Your task to perform on an android device: Open Maps and search for coffee Image 0: 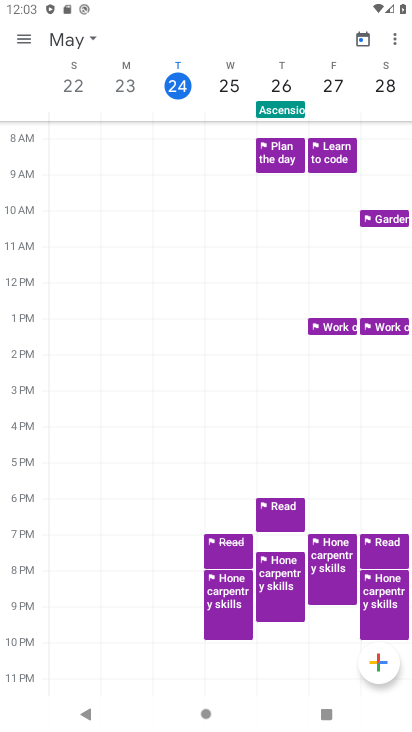
Step 0: press home button
Your task to perform on an android device: Open Maps and search for coffee Image 1: 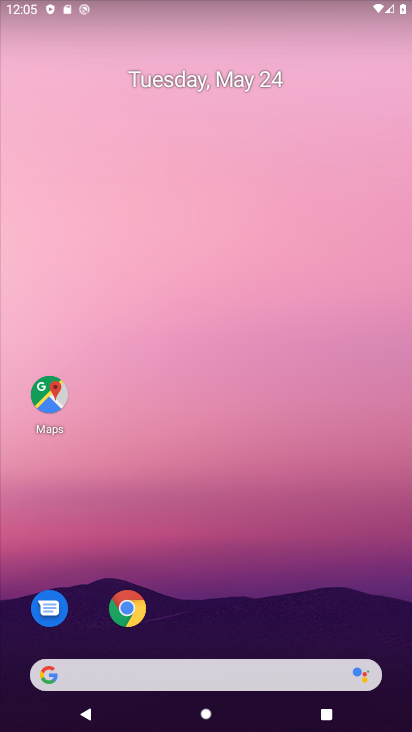
Step 1: drag from (270, 689) to (280, 164)
Your task to perform on an android device: Open Maps and search for coffee Image 2: 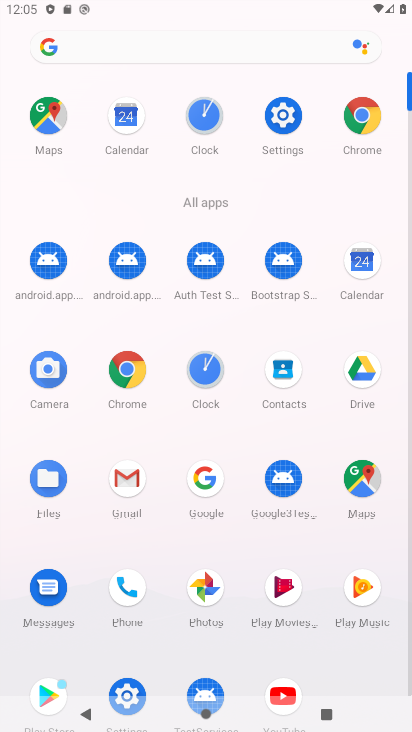
Step 2: click (75, 116)
Your task to perform on an android device: Open Maps and search for coffee Image 3: 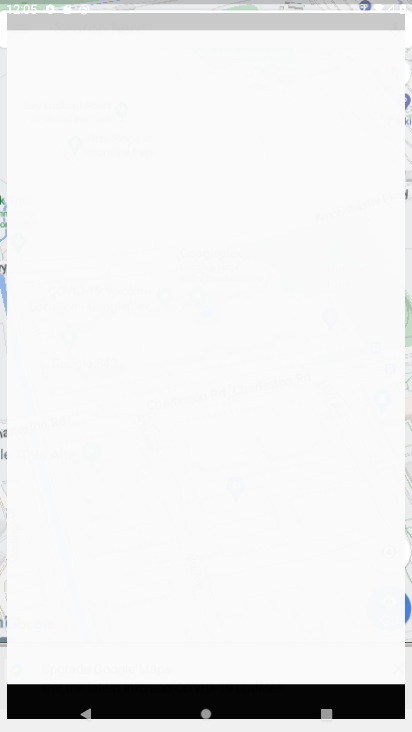
Step 3: click (151, 37)
Your task to perform on an android device: Open Maps and search for coffee Image 4: 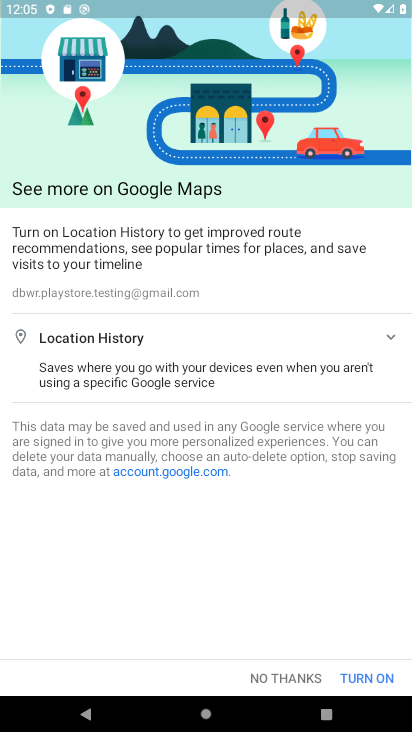
Step 4: click (285, 670)
Your task to perform on an android device: Open Maps and search for coffee Image 5: 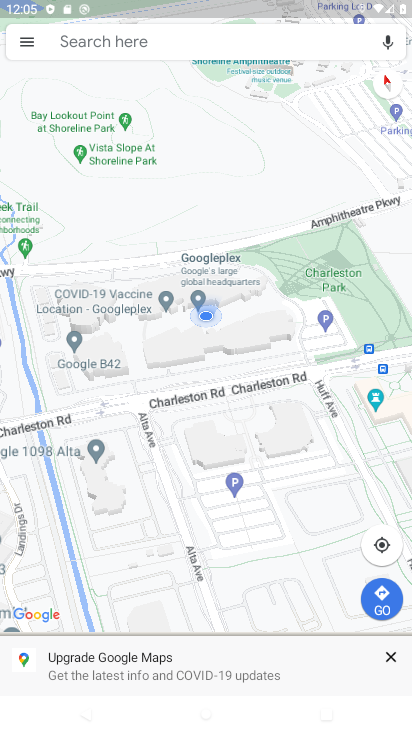
Step 5: click (150, 30)
Your task to perform on an android device: Open Maps and search for coffee Image 6: 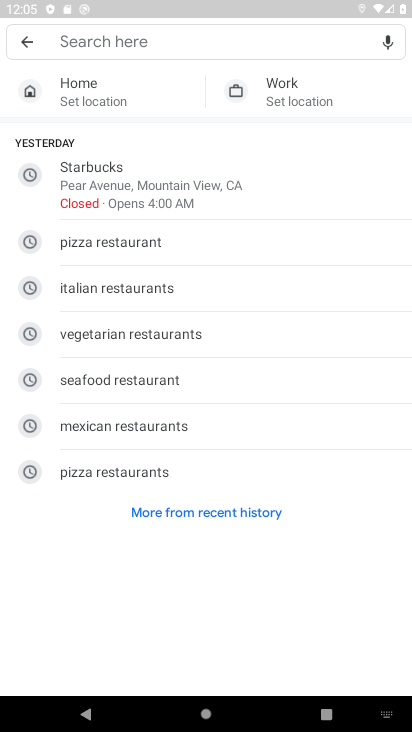
Step 6: drag from (397, 717) to (337, 604)
Your task to perform on an android device: Open Maps and search for coffee Image 7: 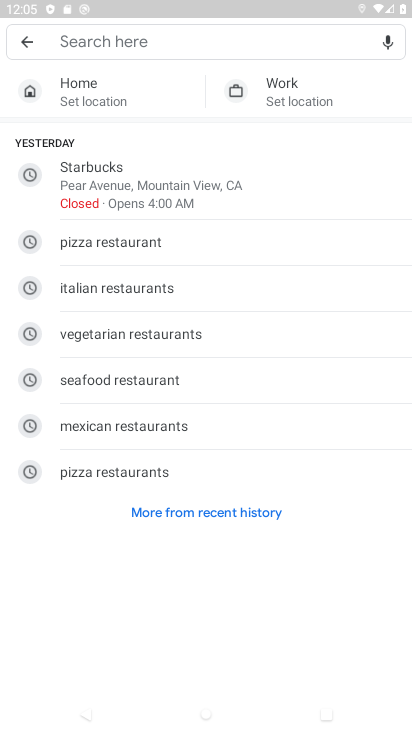
Step 7: click (92, 42)
Your task to perform on an android device: Open Maps and search for coffee Image 8: 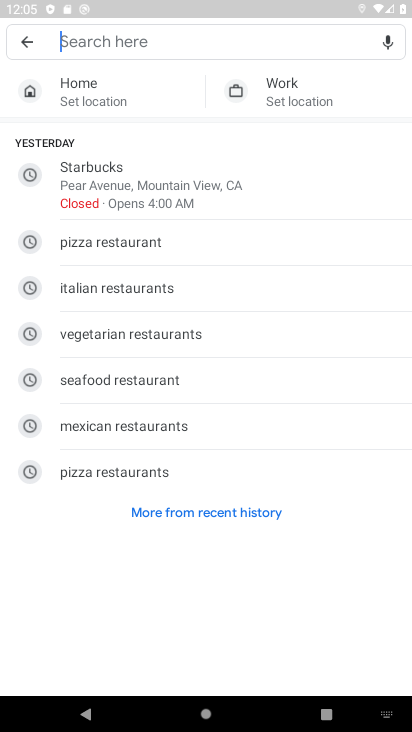
Step 8: click (399, 714)
Your task to perform on an android device: Open Maps and search for coffee Image 9: 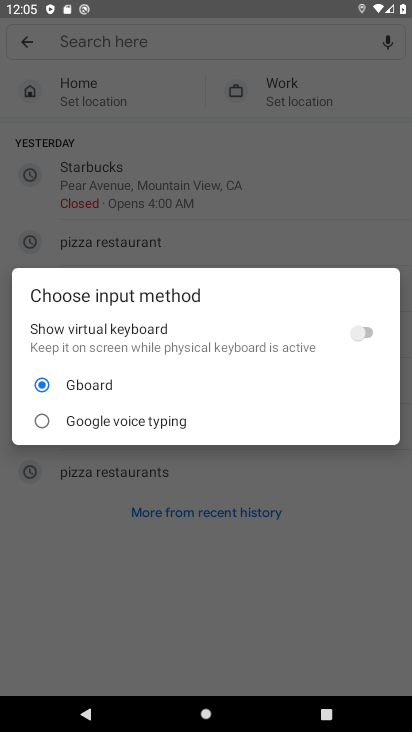
Step 9: click (359, 336)
Your task to perform on an android device: Open Maps and search for coffee Image 10: 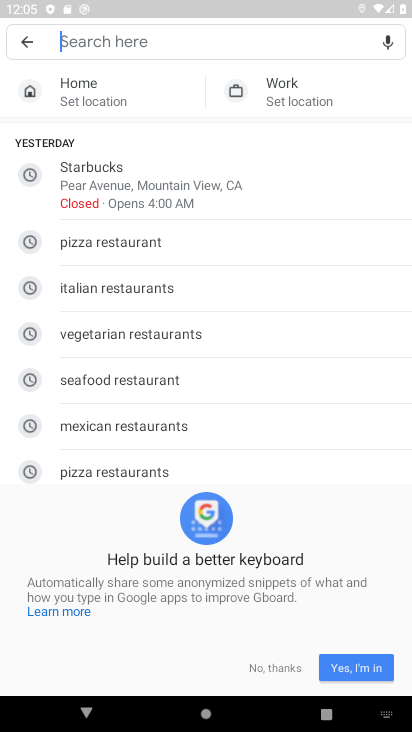
Step 10: click (258, 674)
Your task to perform on an android device: Open Maps and search for coffee Image 11: 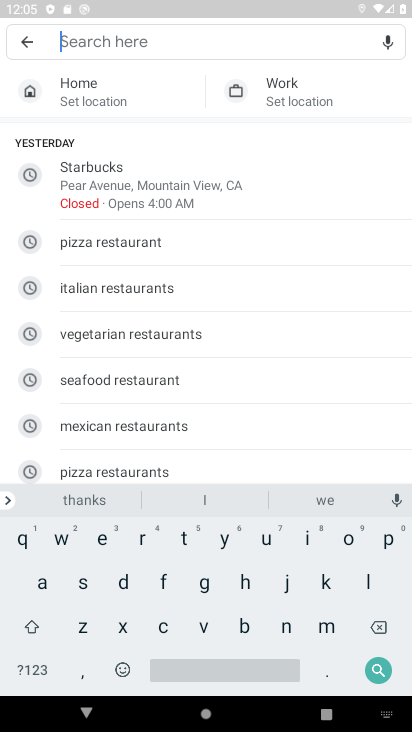
Step 11: click (169, 631)
Your task to perform on an android device: Open Maps and search for coffee Image 12: 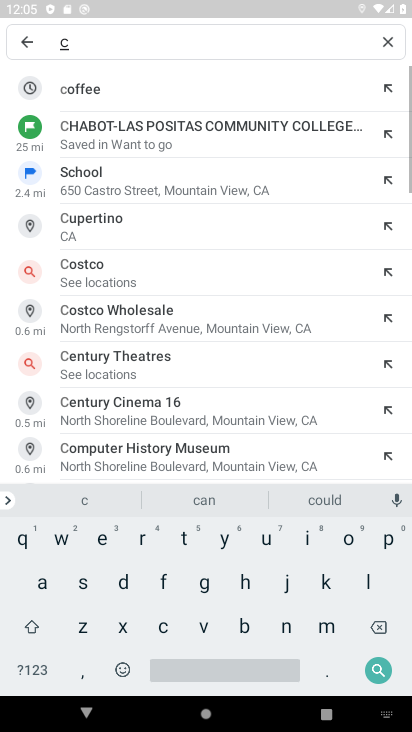
Step 12: click (145, 92)
Your task to perform on an android device: Open Maps and search for coffee Image 13: 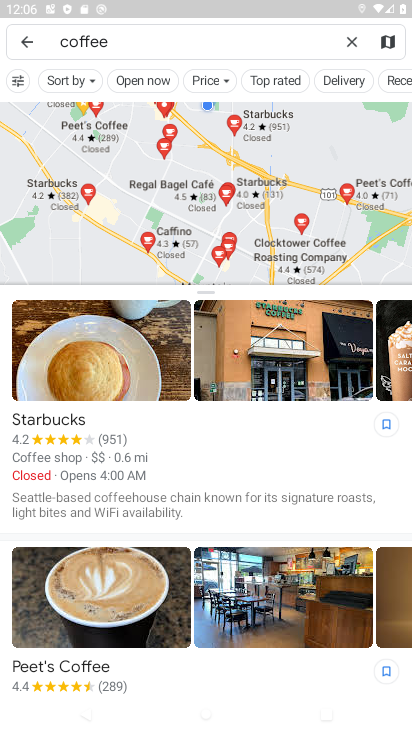
Step 13: task complete